Your task to perform on an android device: Empty the shopping cart on target. Add "alienware area 51" to the cart on target, then select checkout. Image 0: 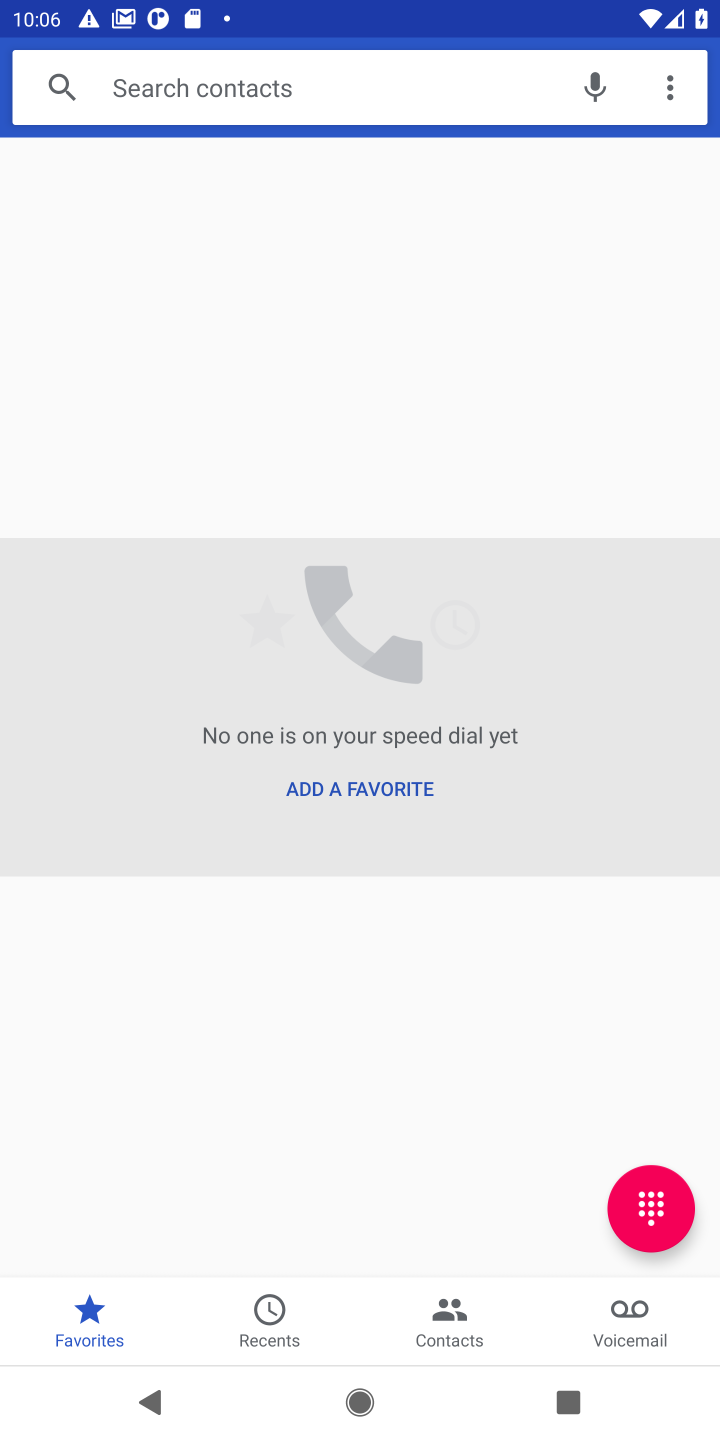
Step 0: press home button
Your task to perform on an android device: Empty the shopping cart on target. Add "alienware area 51" to the cart on target, then select checkout. Image 1: 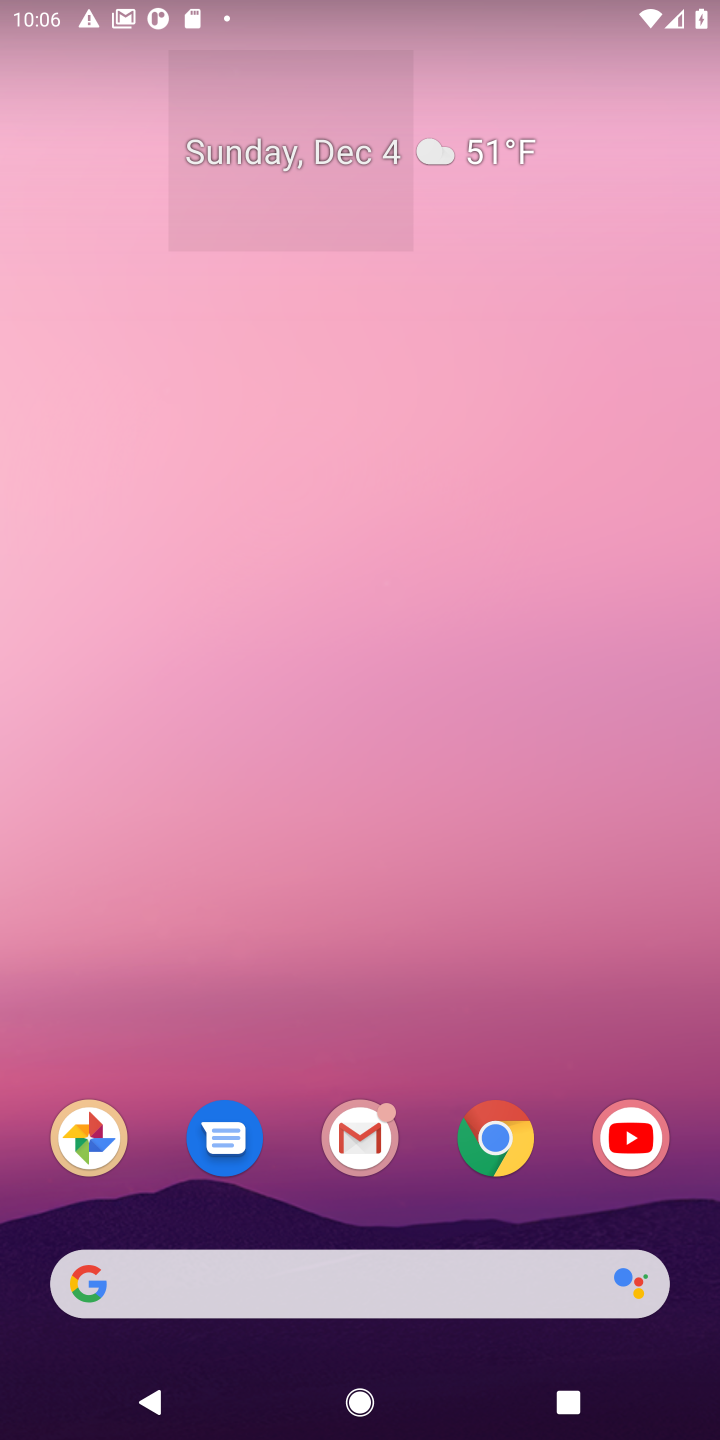
Step 1: click (509, 1147)
Your task to perform on an android device: Empty the shopping cart on target. Add "alienware area 51" to the cart on target, then select checkout. Image 2: 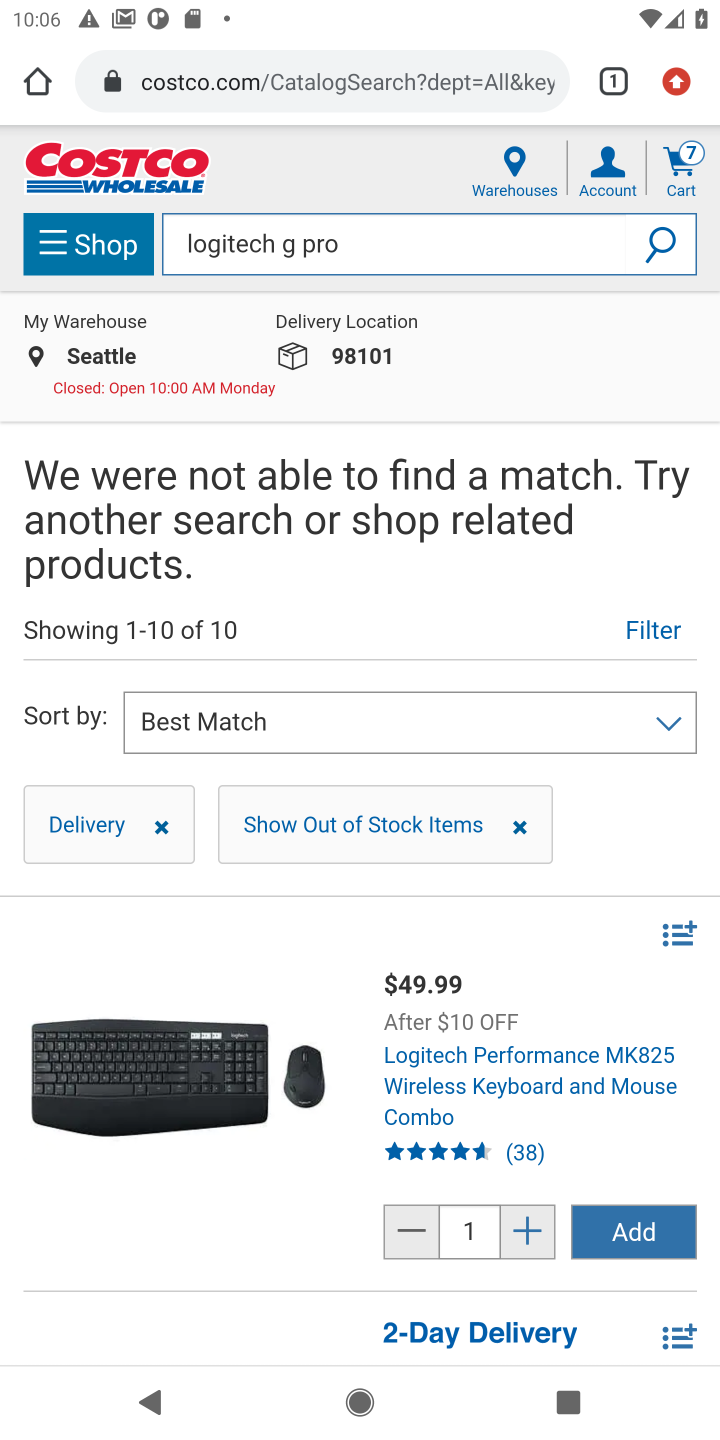
Step 2: click (339, 77)
Your task to perform on an android device: Empty the shopping cart on target. Add "alienware area 51" to the cart on target, then select checkout. Image 3: 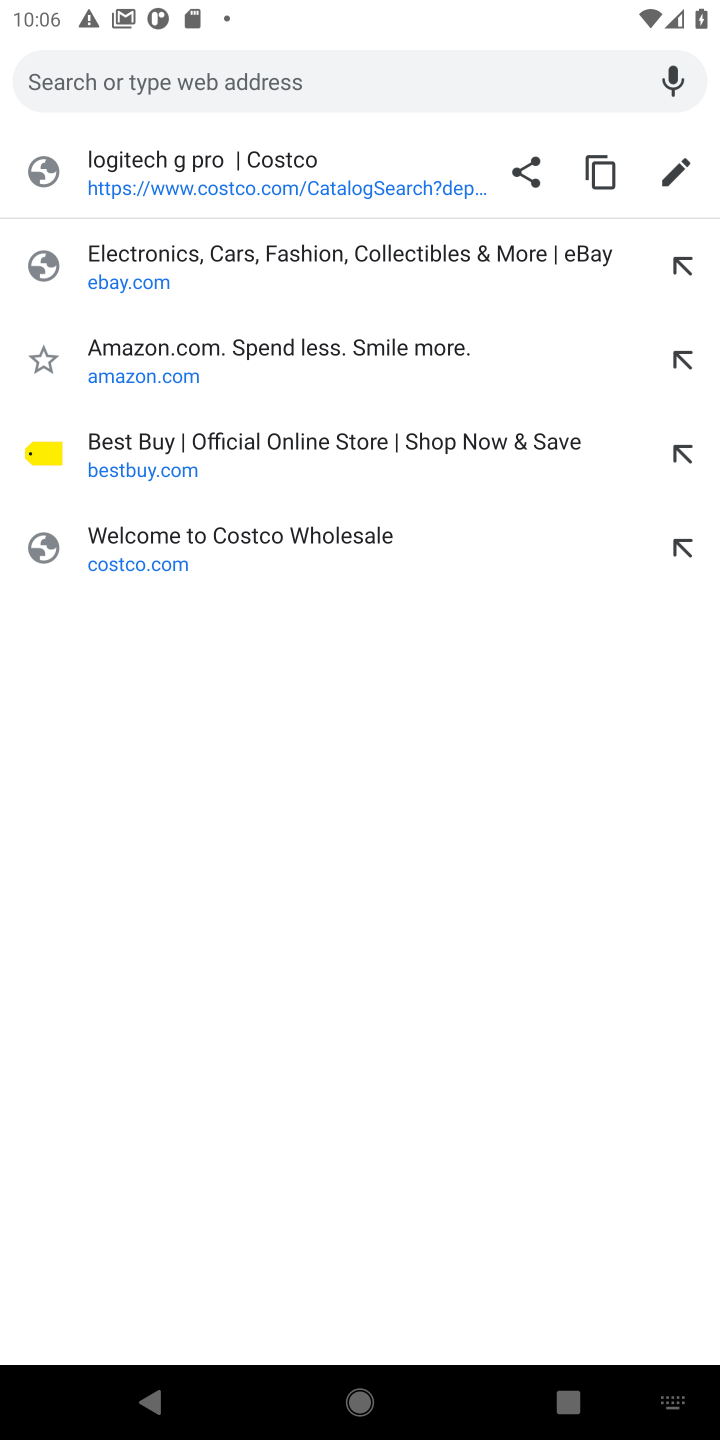
Step 3: press enter
Your task to perform on an android device: Empty the shopping cart on target. Add "alienware area 51" to the cart on target, then select checkout. Image 4: 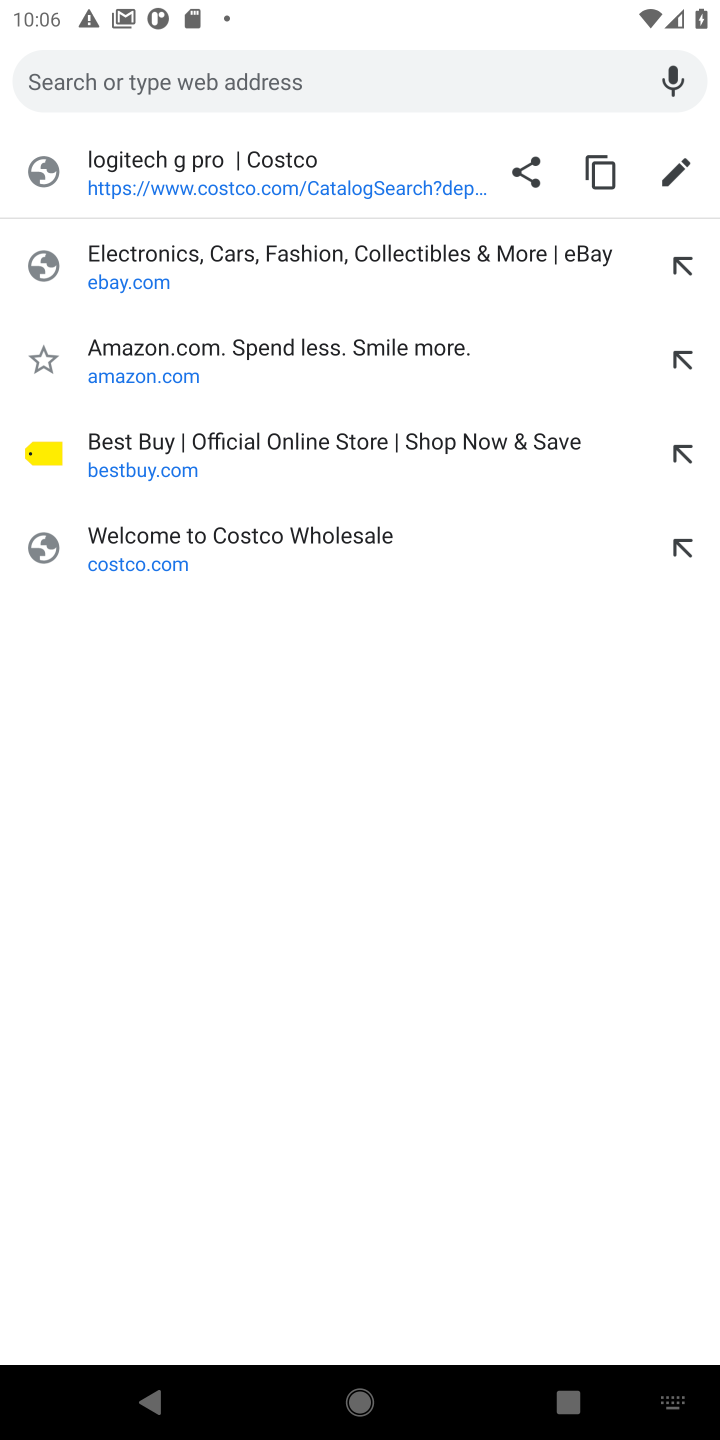
Step 4: type "target"
Your task to perform on an android device: Empty the shopping cart on target. Add "alienware area 51" to the cart on target, then select checkout. Image 5: 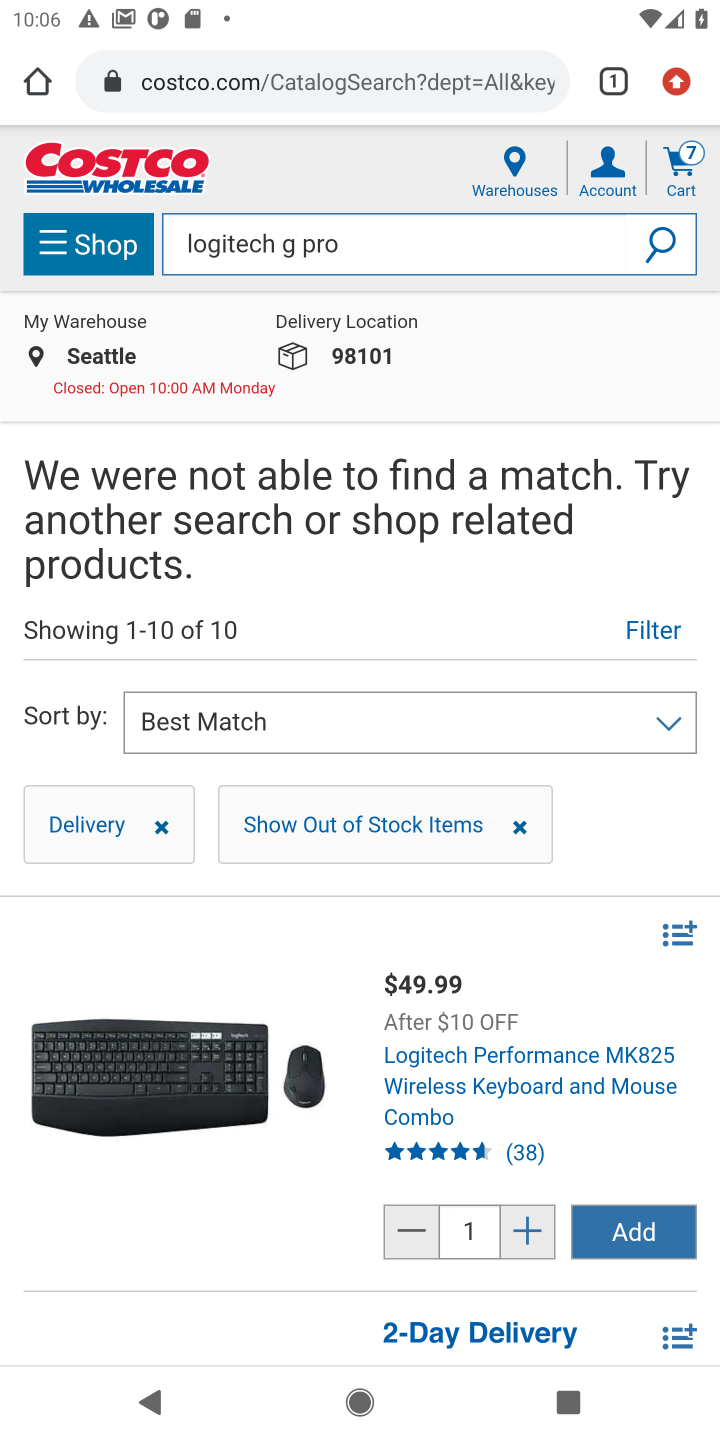
Step 5: click (372, 78)
Your task to perform on an android device: Empty the shopping cart on target. Add "alienware area 51" to the cart on target, then select checkout. Image 6: 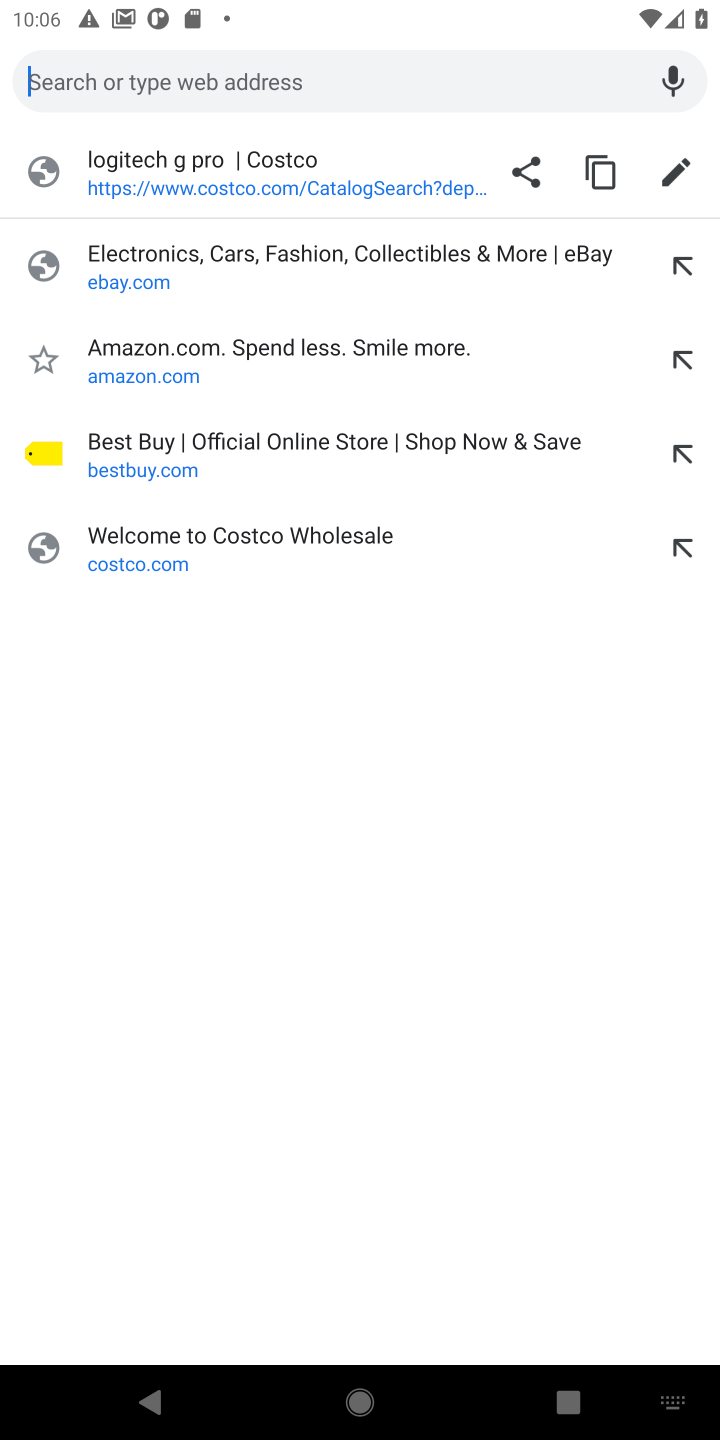
Step 6: type "target"
Your task to perform on an android device: Empty the shopping cart on target. Add "alienware area 51" to the cart on target, then select checkout. Image 7: 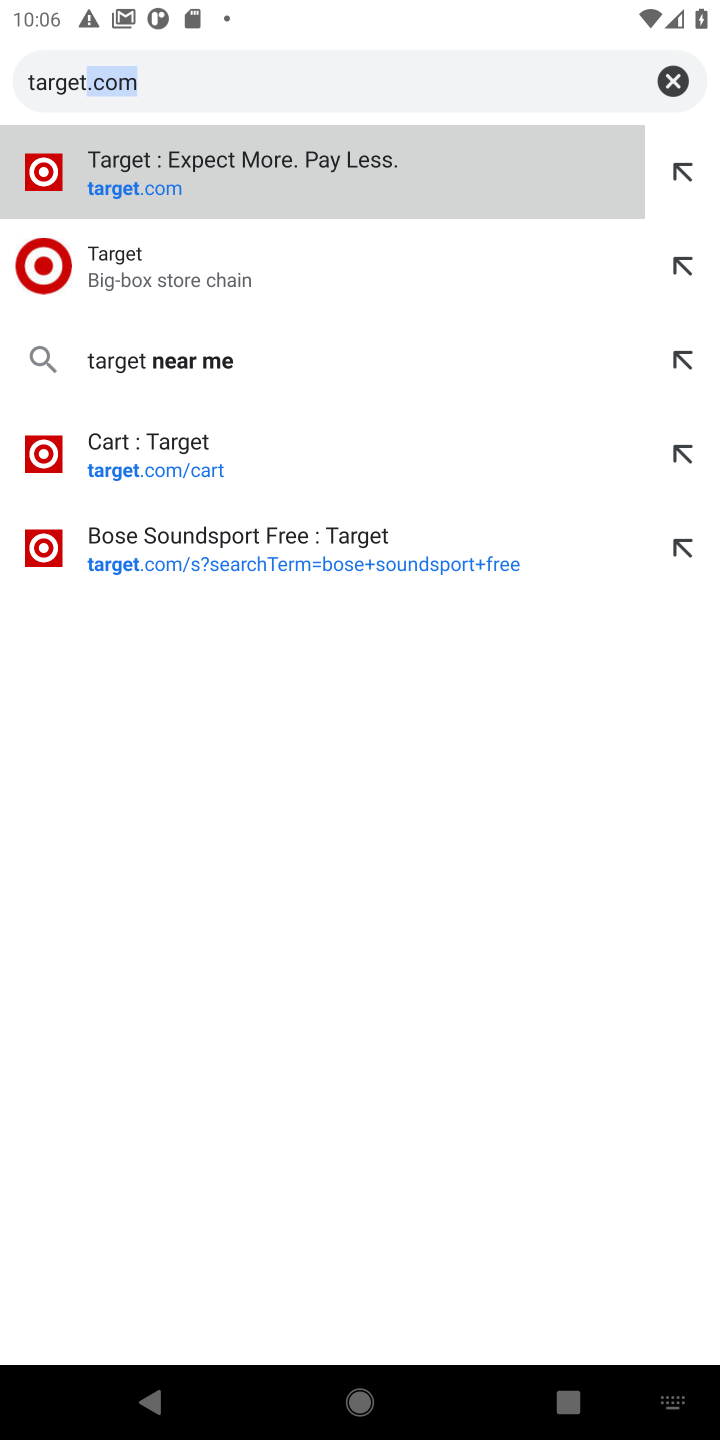
Step 7: click (322, 51)
Your task to perform on an android device: Empty the shopping cart on target. Add "alienware area 51" to the cart on target, then select checkout. Image 8: 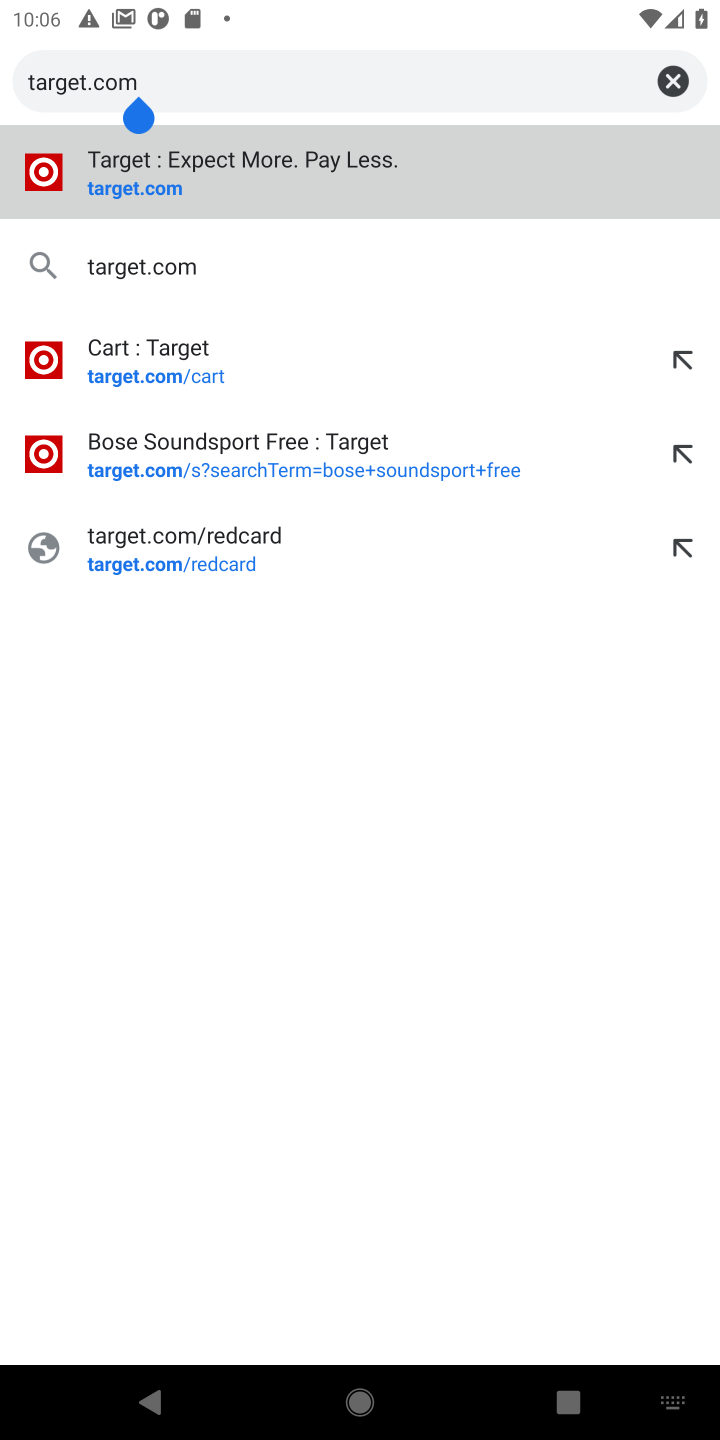
Step 8: press home button
Your task to perform on an android device: Empty the shopping cart on target. Add "alienware area 51" to the cart on target, then select checkout. Image 9: 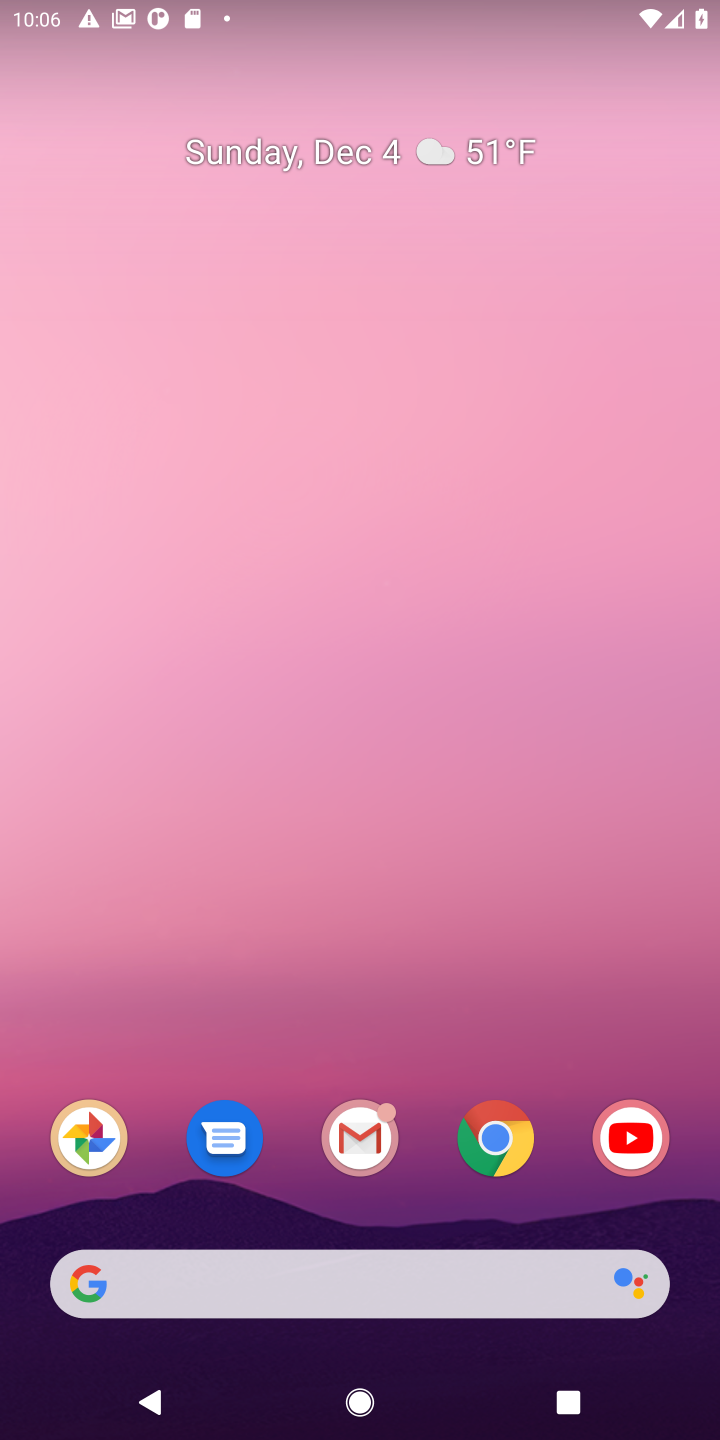
Step 9: click (527, 1125)
Your task to perform on an android device: Empty the shopping cart on target. Add "alienware area 51" to the cart on target, then select checkout. Image 10: 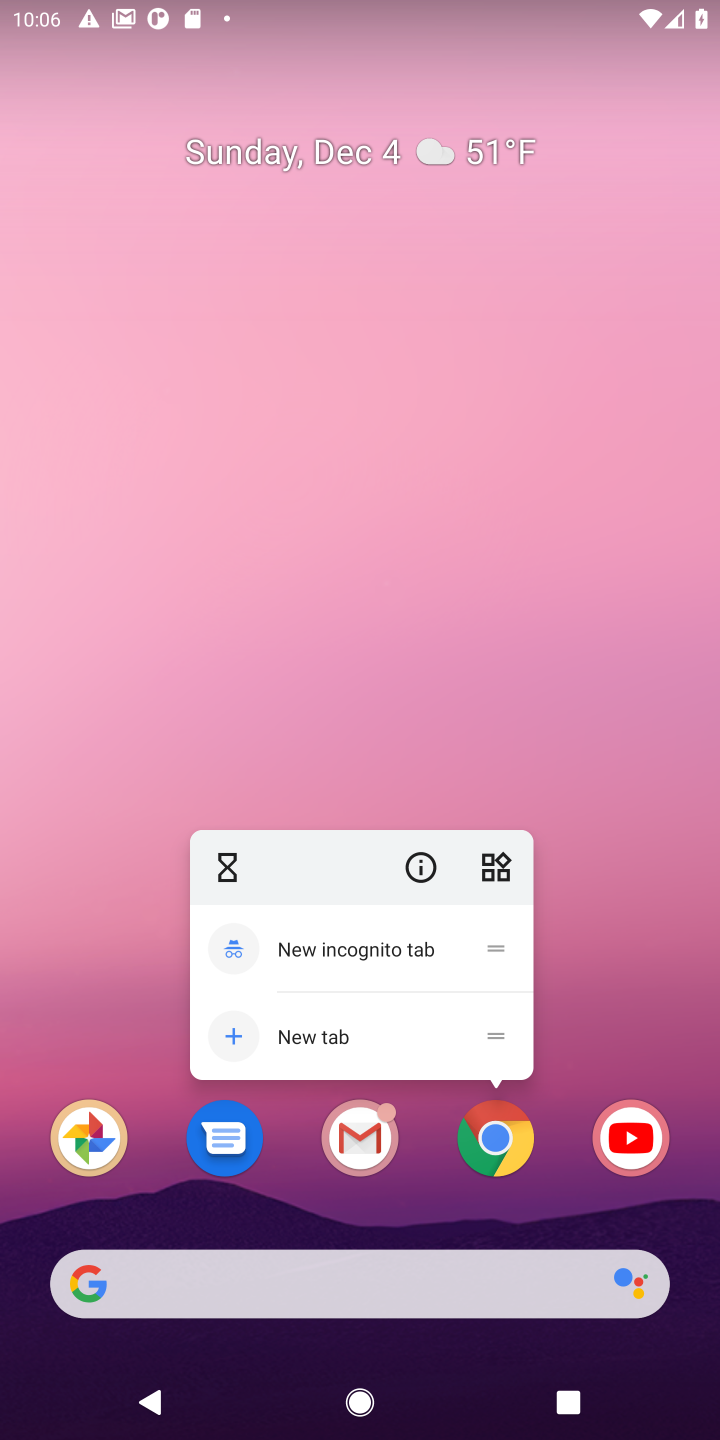
Step 10: click (491, 1141)
Your task to perform on an android device: Empty the shopping cart on target. Add "alienware area 51" to the cart on target, then select checkout. Image 11: 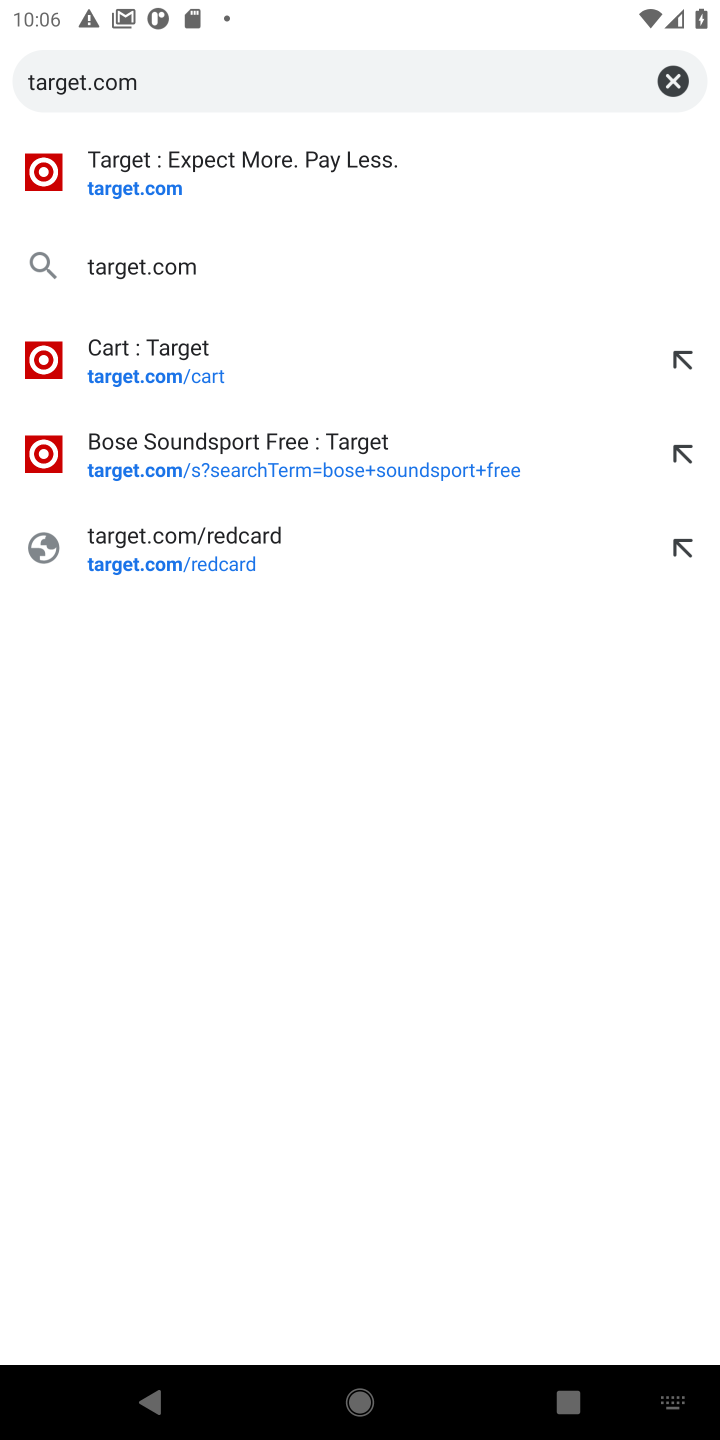
Step 11: click (155, 273)
Your task to perform on an android device: Empty the shopping cart on target. Add "alienware area 51" to the cart on target, then select checkout. Image 12: 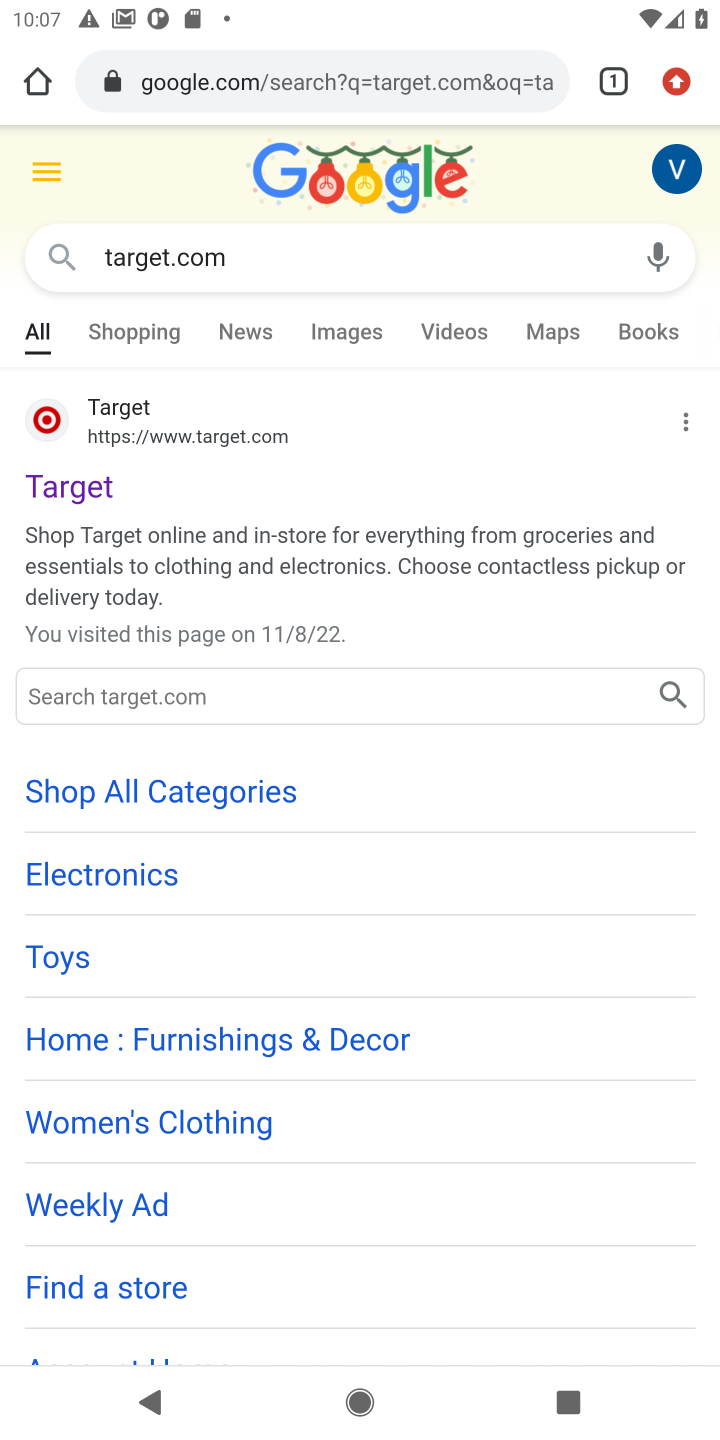
Step 12: click (167, 436)
Your task to perform on an android device: Empty the shopping cart on target. Add "alienware area 51" to the cart on target, then select checkout. Image 13: 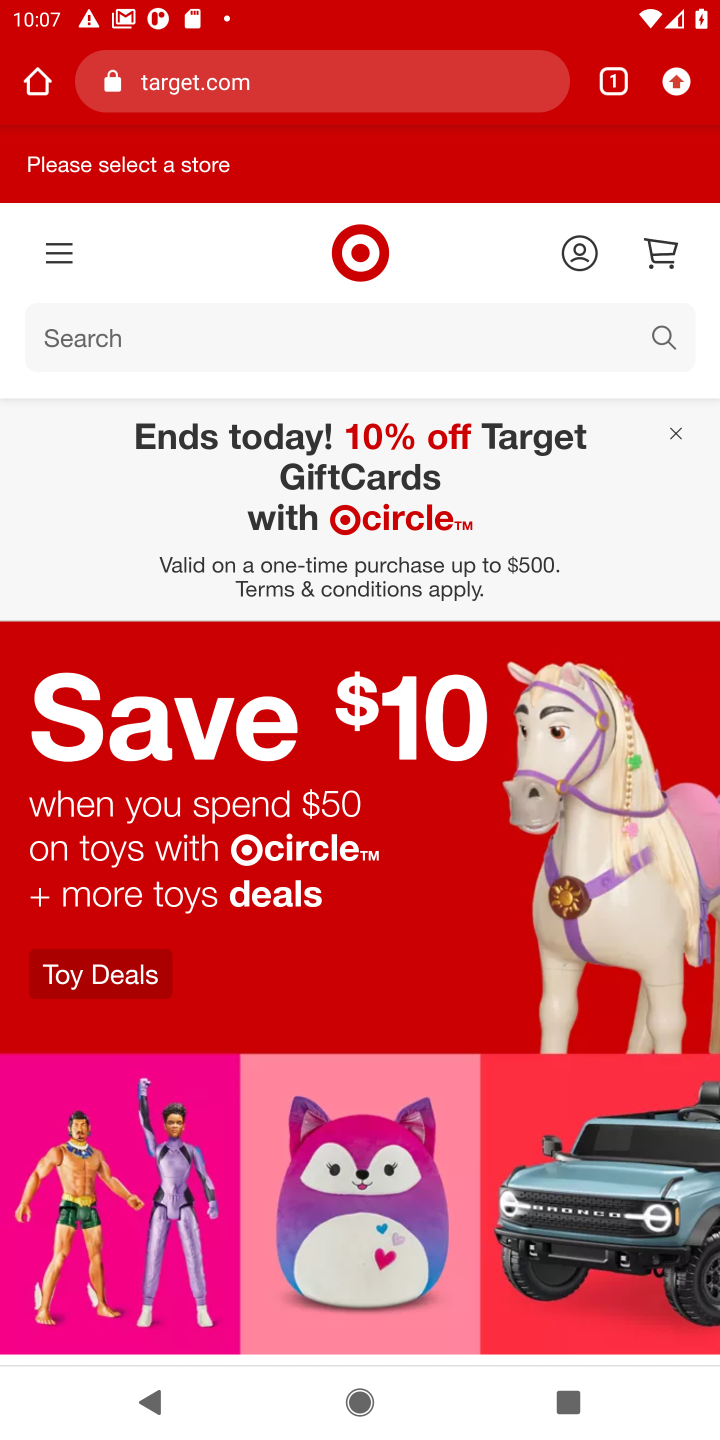
Step 13: click (469, 325)
Your task to perform on an android device: Empty the shopping cart on target. Add "alienware area 51" to the cart on target, then select checkout. Image 14: 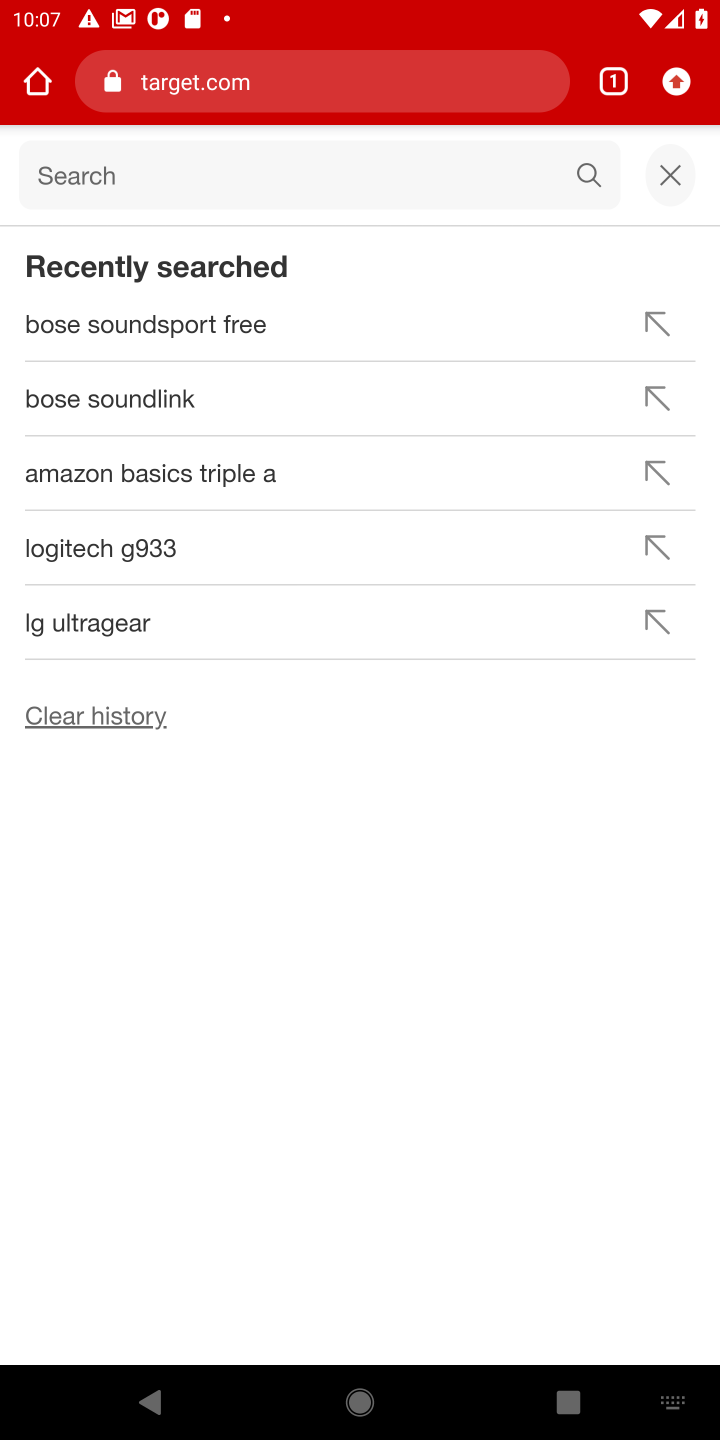
Step 14: type "alienware area 51"
Your task to perform on an android device: Empty the shopping cart on target. Add "alienware area 51" to the cart on target, then select checkout. Image 15: 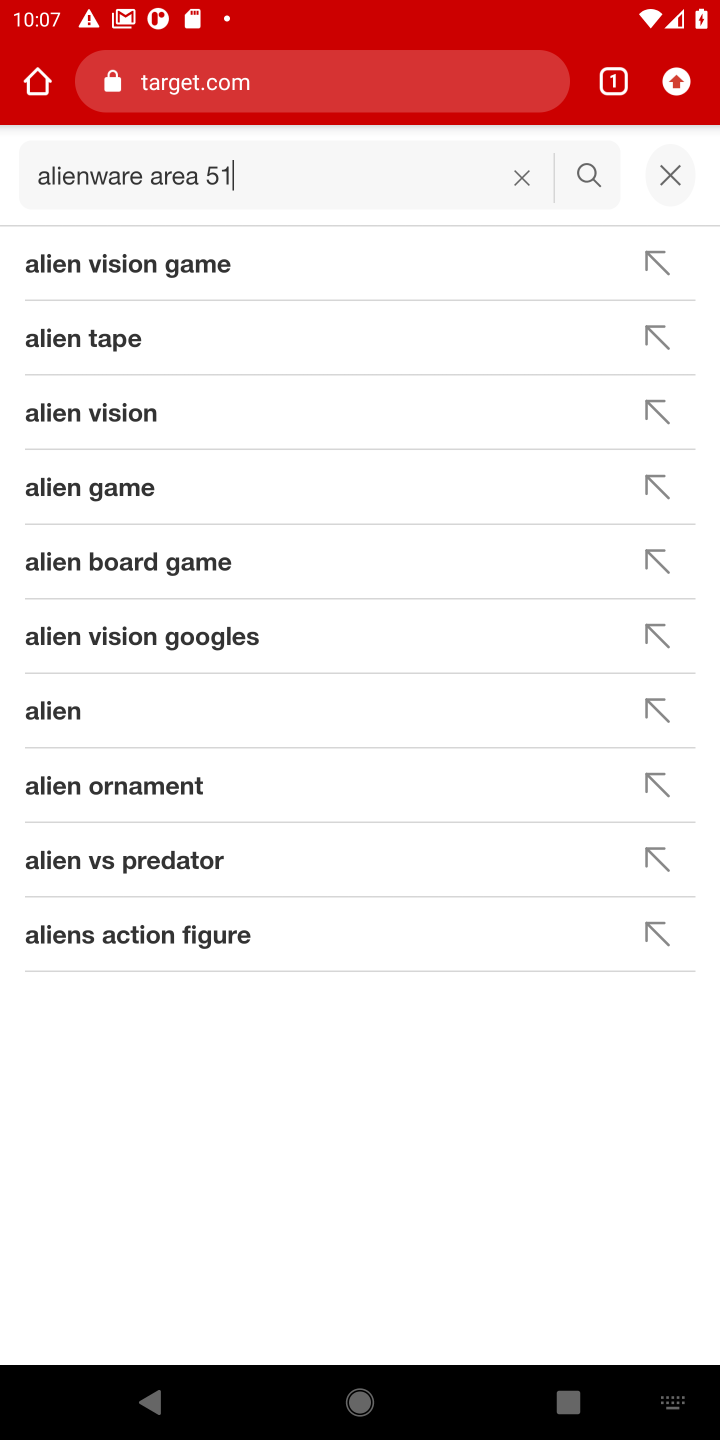
Step 15: press enter
Your task to perform on an android device: Empty the shopping cart on target. Add "alienware area 51" to the cart on target, then select checkout. Image 16: 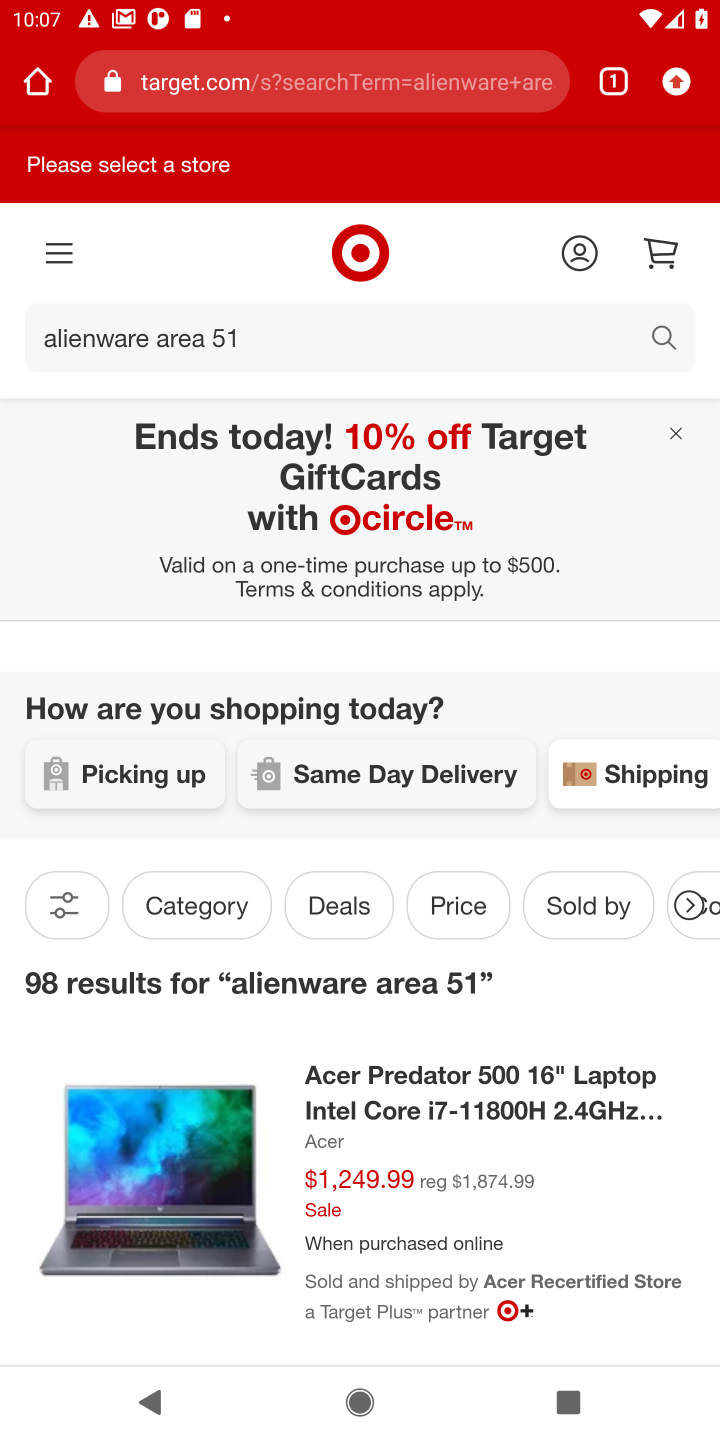
Step 16: task complete